Your task to perform on an android device: Go to Google Image 0: 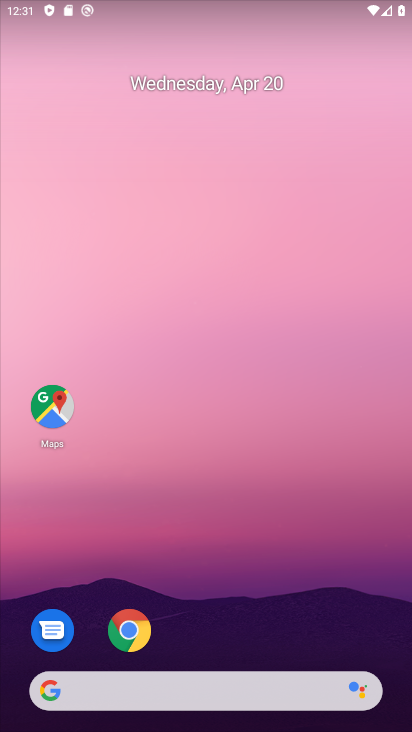
Step 0: drag from (253, 552) to (257, 137)
Your task to perform on an android device: Go to Google Image 1: 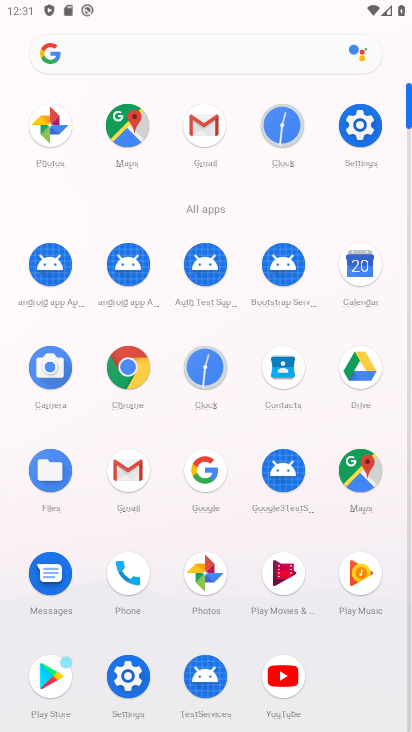
Step 1: click (205, 471)
Your task to perform on an android device: Go to Google Image 2: 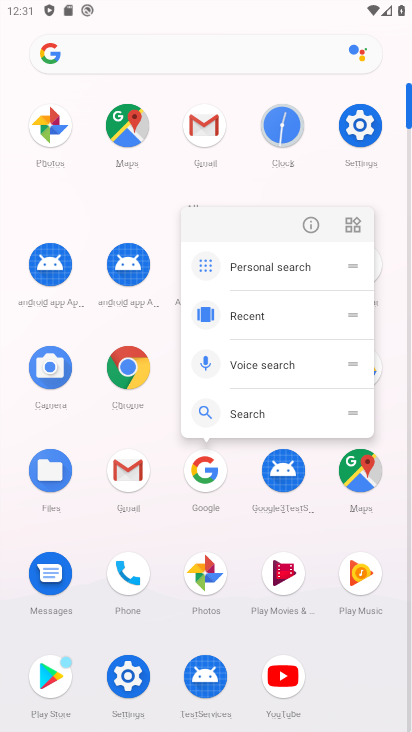
Step 2: click (205, 472)
Your task to perform on an android device: Go to Google Image 3: 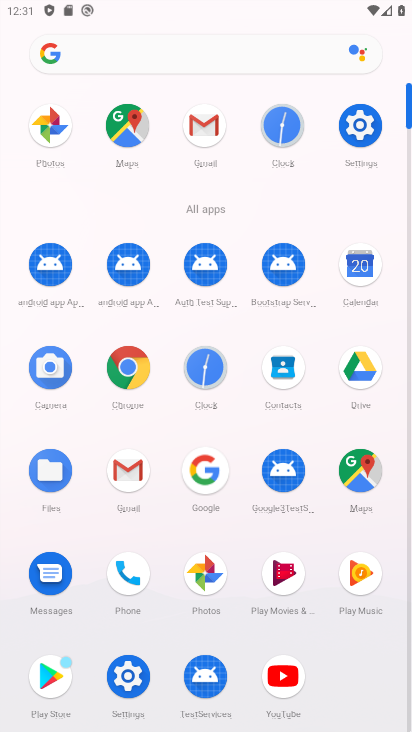
Step 3: click (205, 472)
Your task to perform on an android device: Go to Google Image 4: 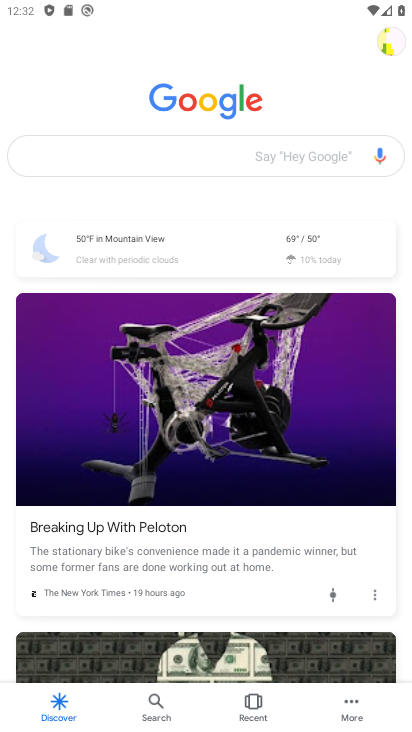
Step 4: task complete